Your task to perform on an android device: Go to Android settings Image 0: 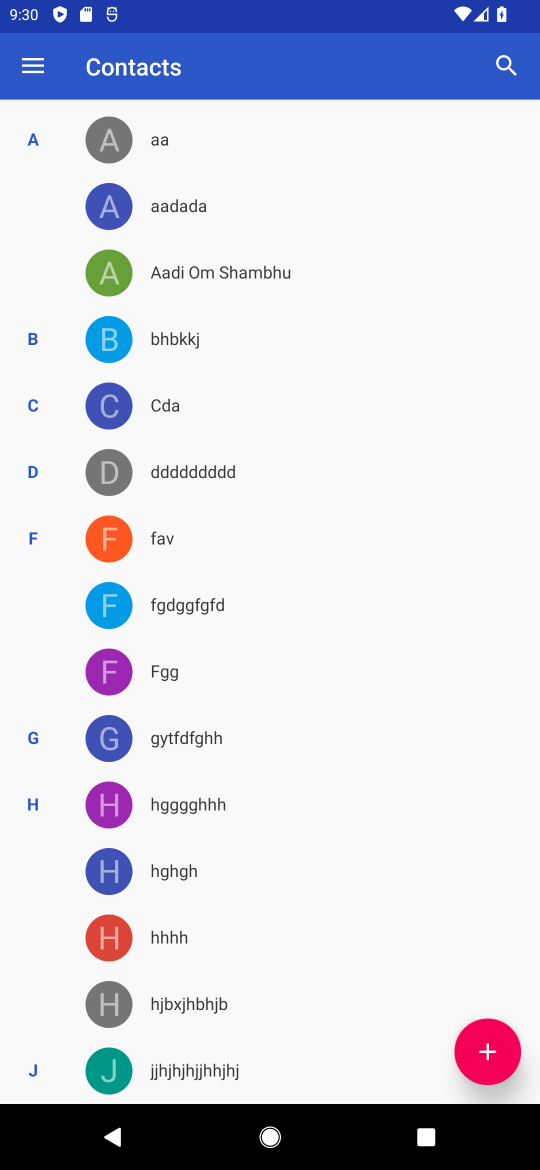
Step 0: press home button
Your task to perform on an android device: Go to Android settings Image 1: 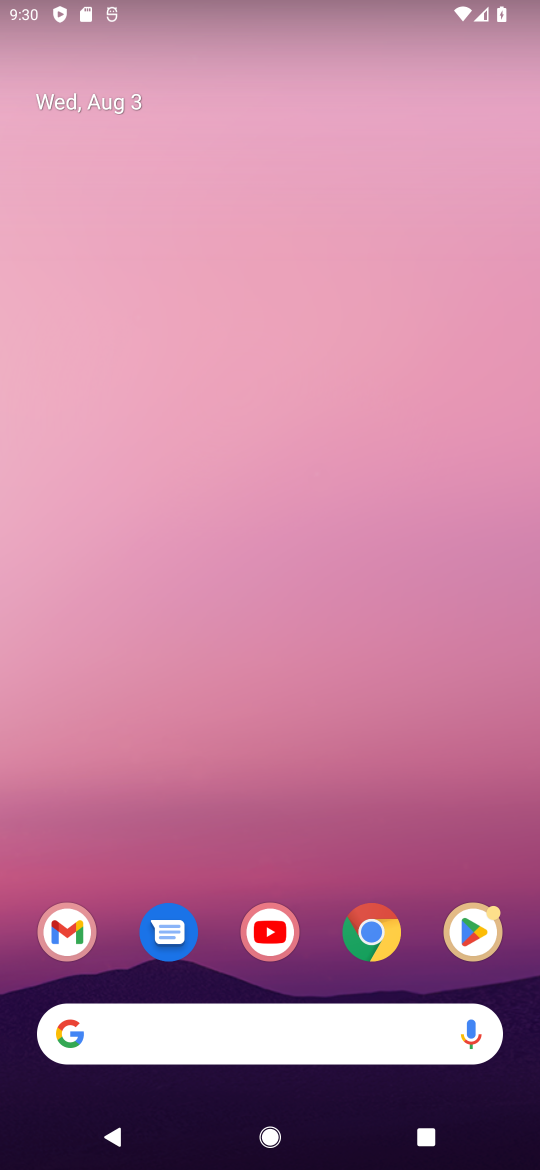
Step 1: drag from (336, 838) to (248, 68)
Your task to perform on an android device: Go to Android settings Image 2: 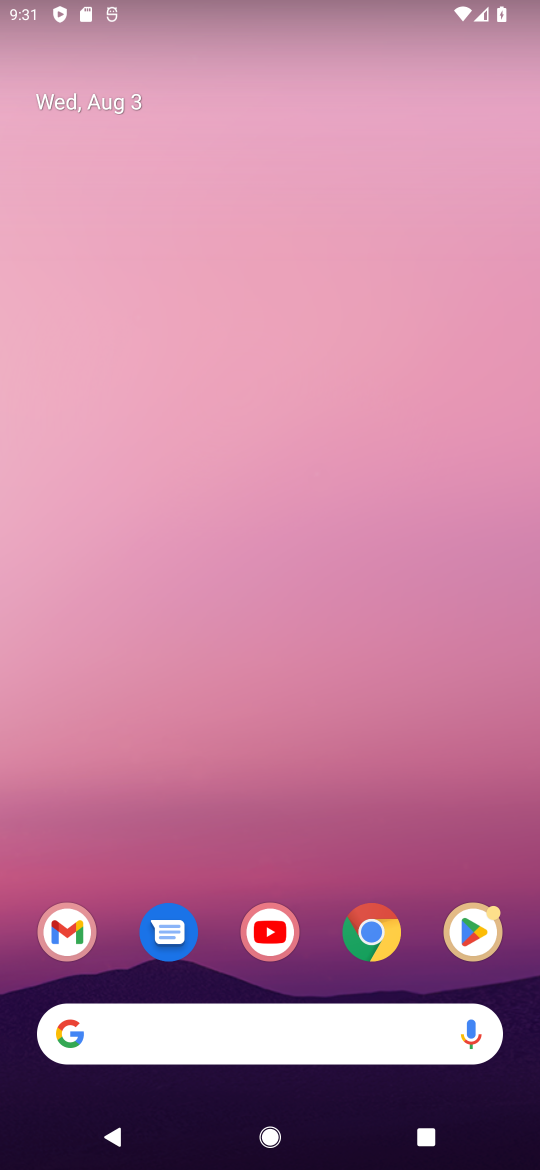
Step 2: drag from (317, 873) to (278, 202)
Your task to perform on an android device: Go to Android settings Image 3: 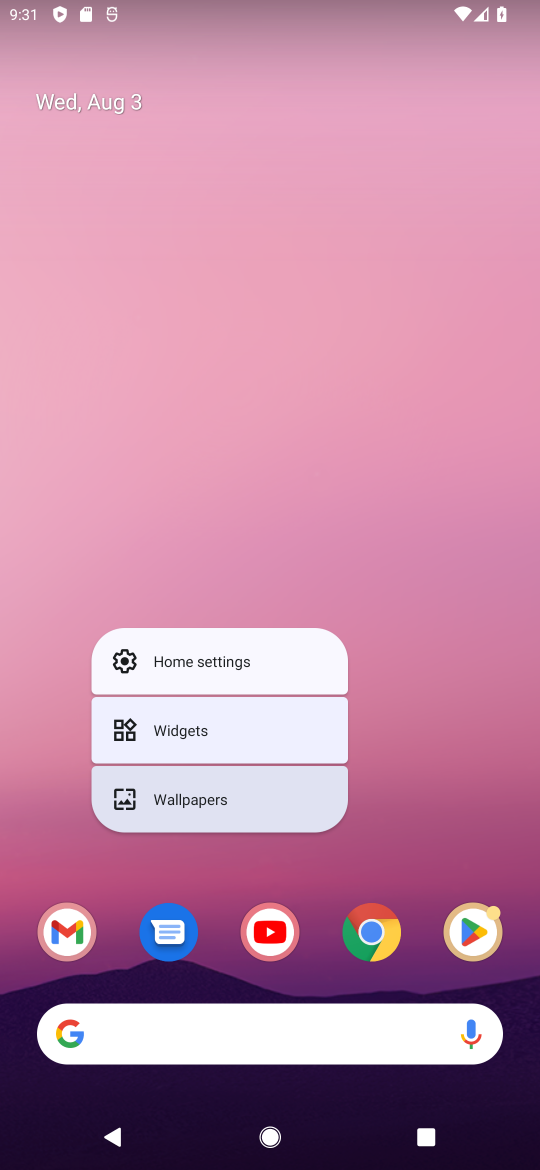
Step 3: drag from (434, 963) to (396, 174)
Your task to perform on an android device: Go to Android settings Image 4: 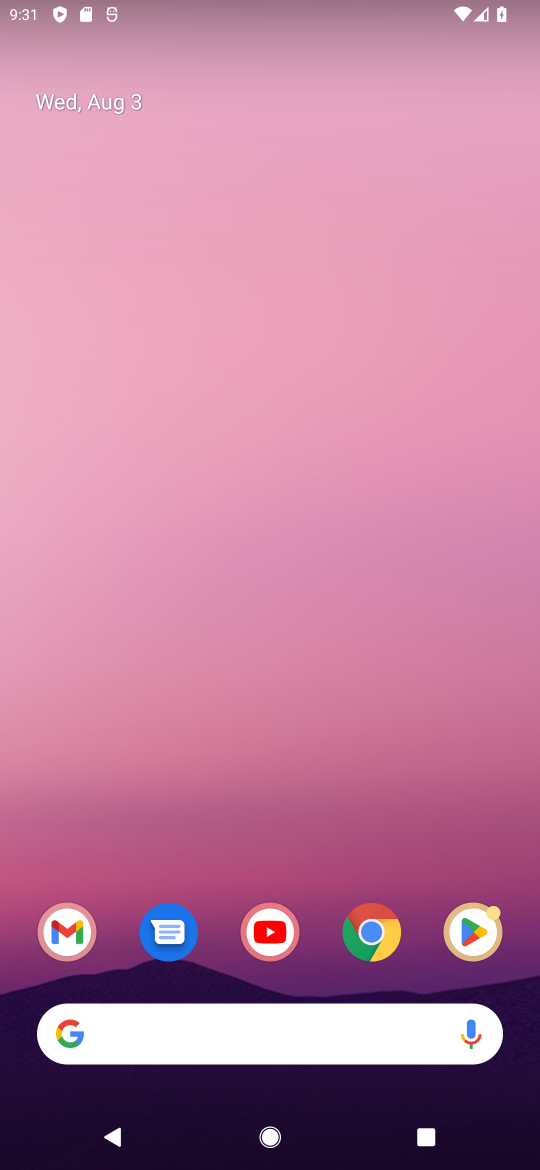
Step 4: drag from (431, 975) to (356, 296)
Your task to perform on an android device: Go to Android settings Image 5: 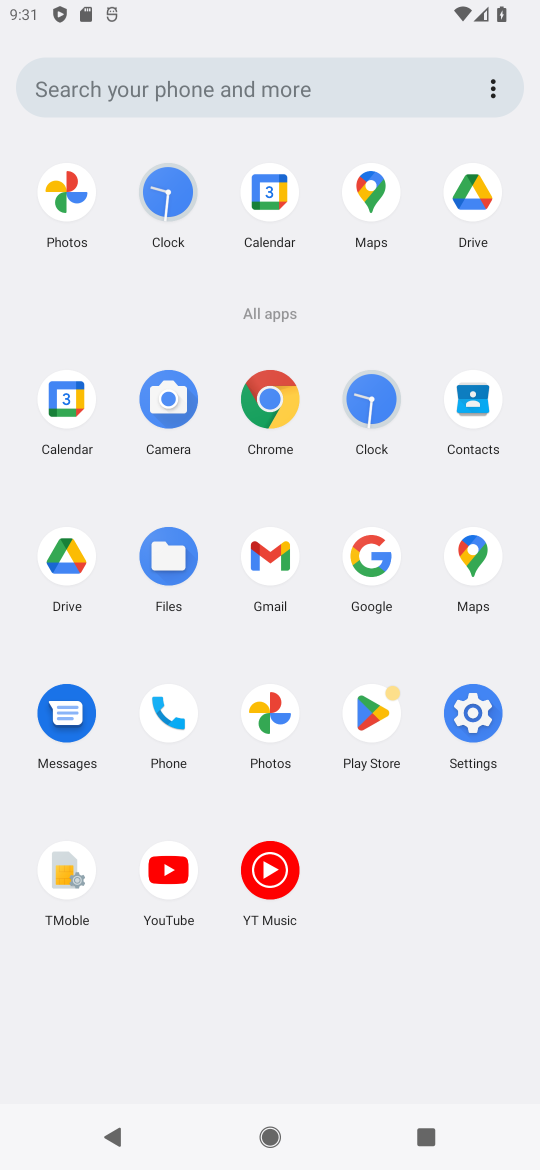
Step 5: click (479, 722)
Your task to perform on an android device: Go to Android settings Image 6: 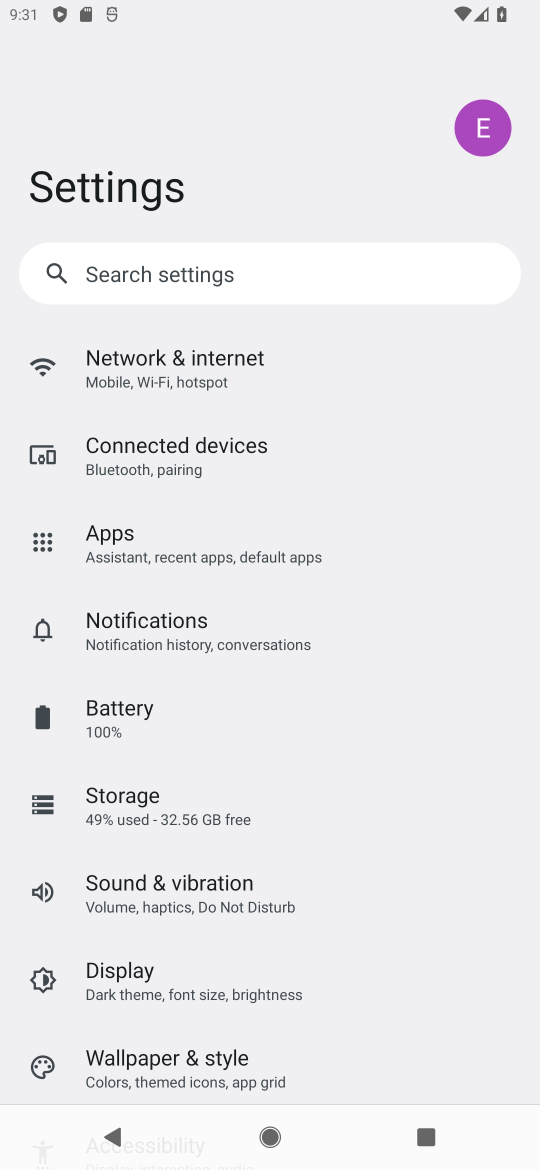
Step 6: task complete